Your task to perform on an android device: change notification settings in the gmail app Image 0: 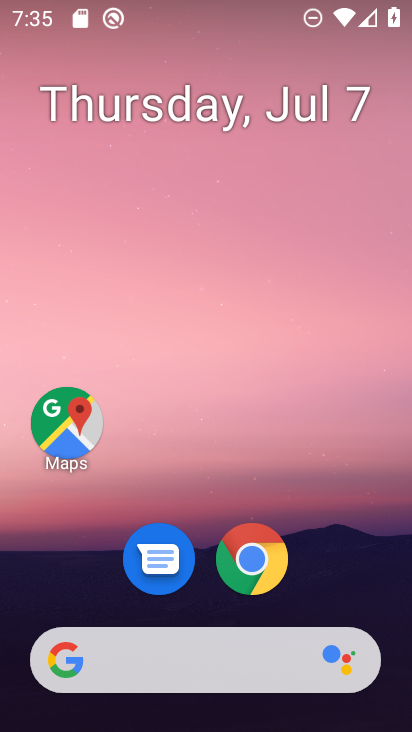
Step 0: drag from (220, 676) to (260, 81)
Your task to perform on an android device: change notification settings in the gmail app Image 1: 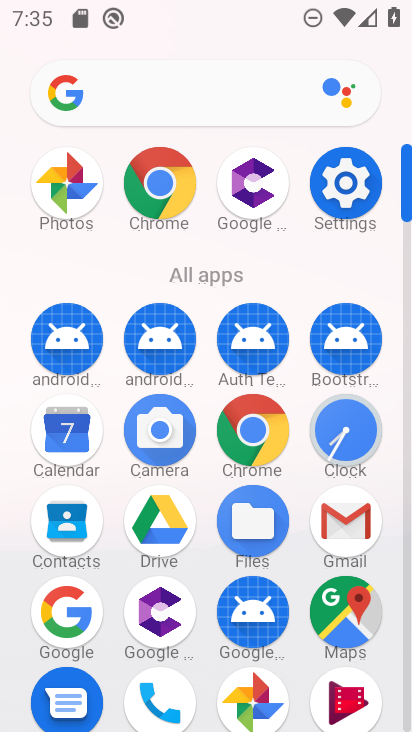
Step 1: click (348, 519)
Your task to perform on an android device: change notification settings in the gmail app Image 2: 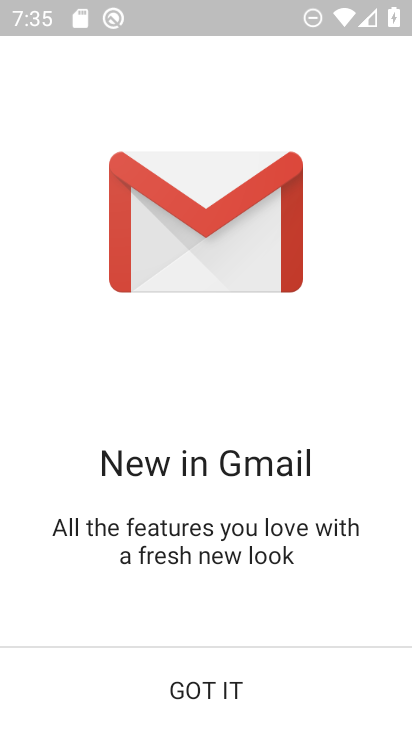
Step 2: click (202, 670)
Your task to perform on an android device: change notification settings in the gmail app Image 3: 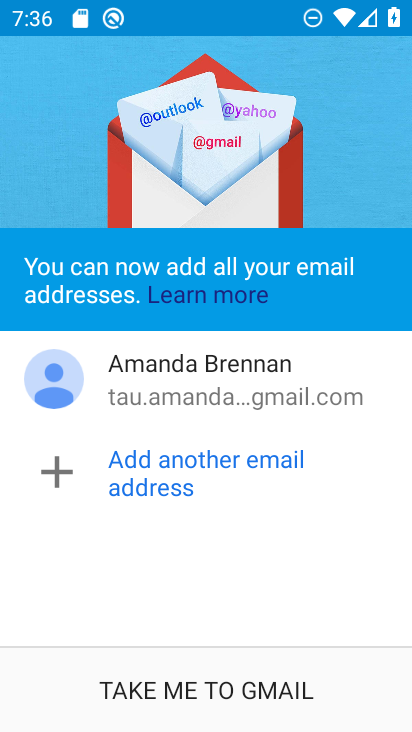
Step 3: click (199, 678)
Your task to perform on an android device: change notification settings in the gmail app Image 4: 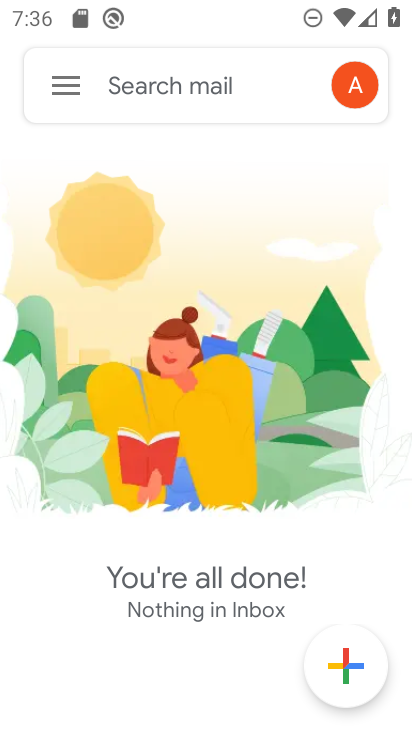
Step 4: click (66, 84)
Your task to perform on an android device: change notification settings in the gmail app Image 5: 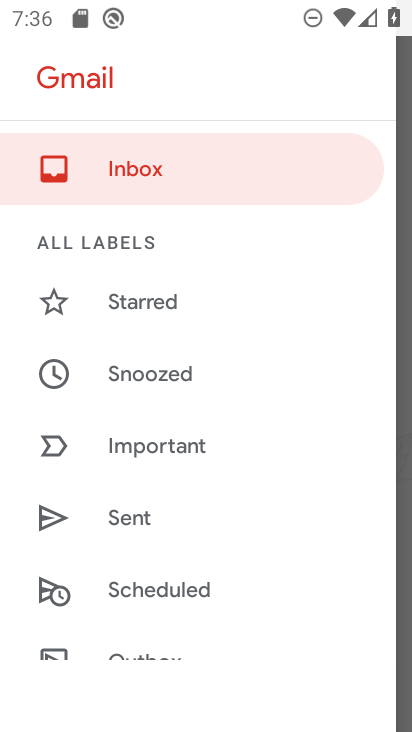
Step 5: drag from (213, 397) to (244, 171)
Your task to perform on an android device: change notification settings in the gmail app Image 6: 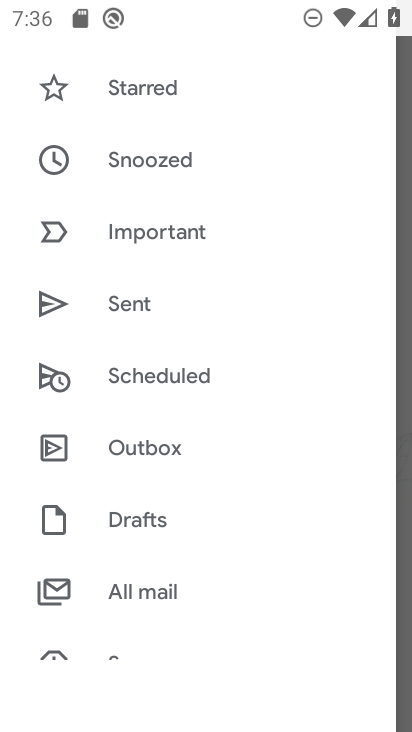
Step 6: drag from (225, 491) to (278, 114)
Your task to perform on an android device: change notification settings in the gmail app Image 7: 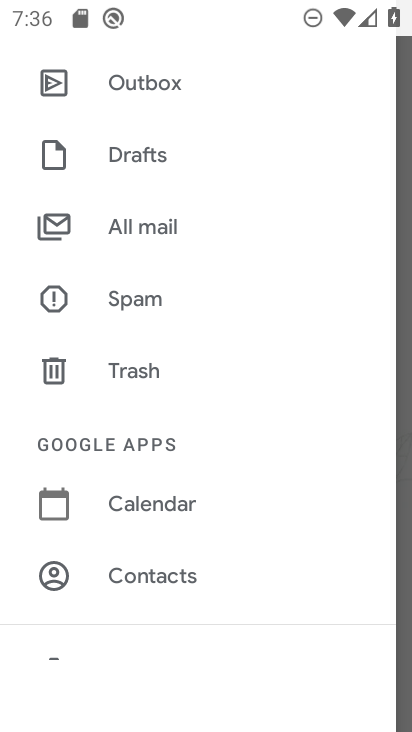
Step 7: drag from (232, 576) to (288, 125)
Your task to perform on an android device: change notification settings in the gmail app Image 8: 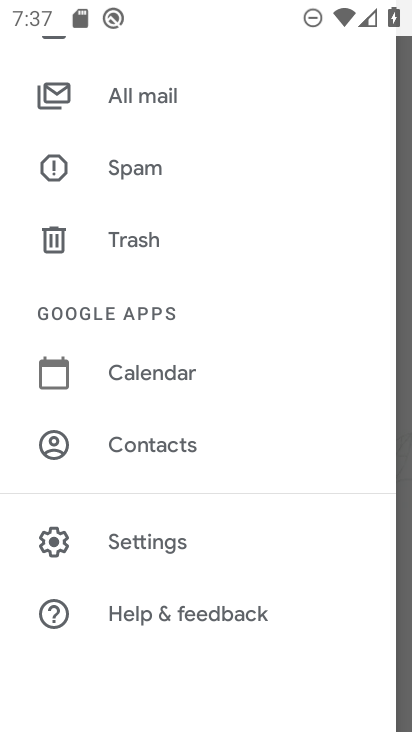
Step 8: click (173, 549)
Your task to perform on an android device: change notification settings in the gmail app Image 9: 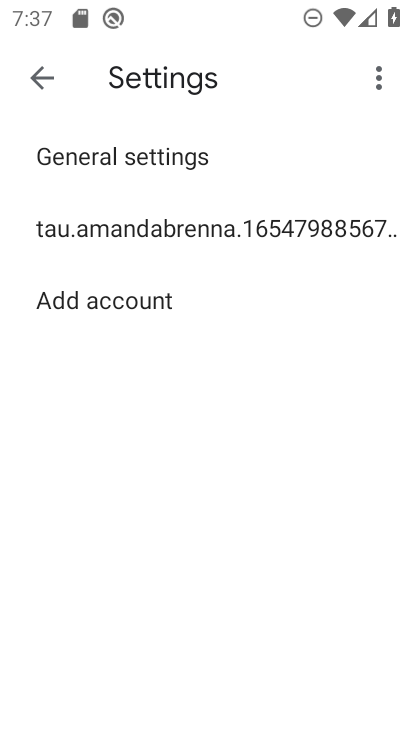
Step 9: click (170, 226)
Your task to perform on an android device: change notification settings in the gmail app Image 10: 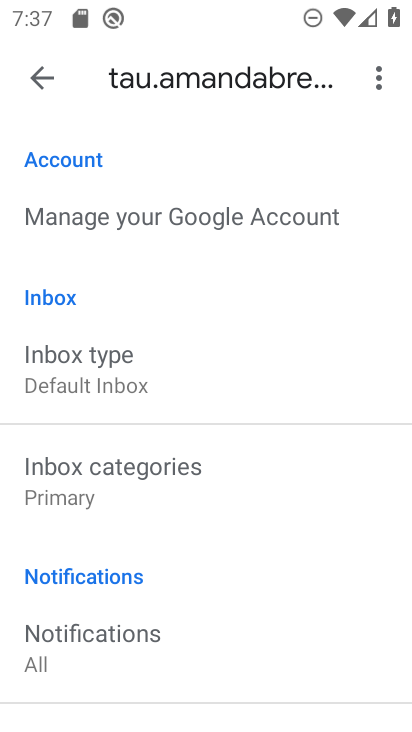
Step 10: drag from (188, 524) to (232, 140)
Your task to perform on an android device: change notification settings in the gmail app Image 11: 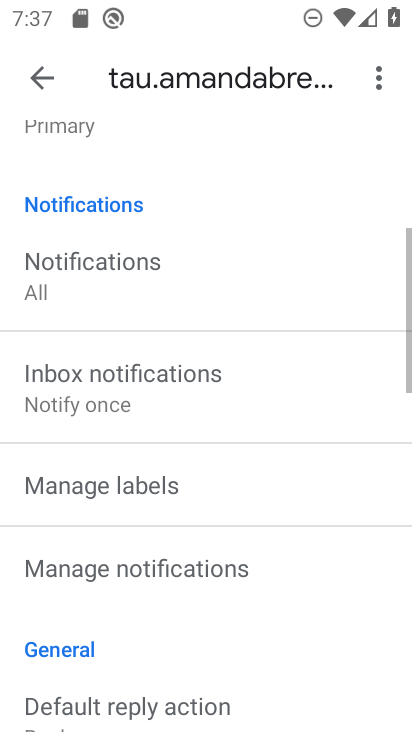
Step 11: click (62, 271)
Your task to perform on an android device: change notification settings in the gmail app Image 12: 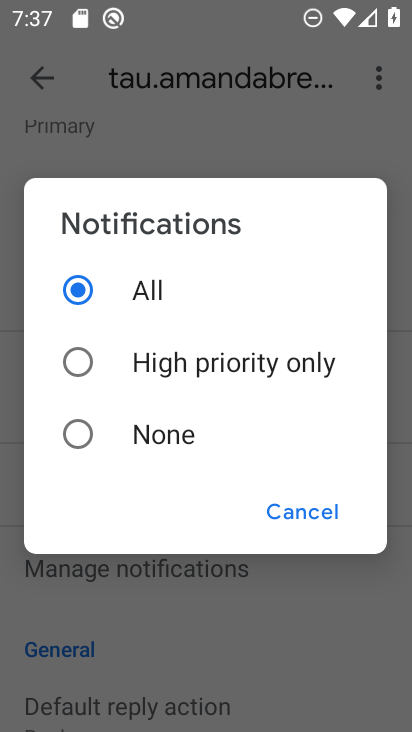
Step 12: click (77, 362)
Your task to perform on an android device: change notification settings in the gmail app Image 13: 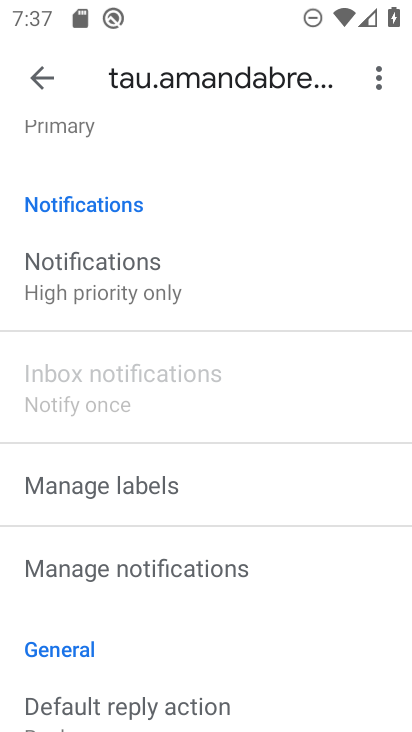
Step 13: task complete